Your task to perform on an android device: Go to location settings Image 0: 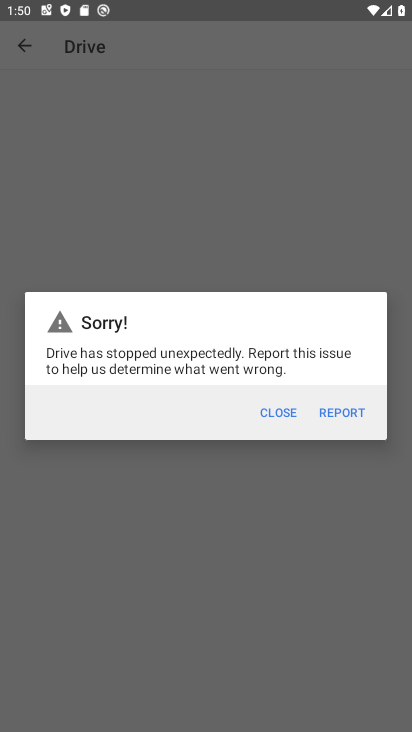
Step 0: press home button
Your task to perform on an android device: Go to location settings Image 1: 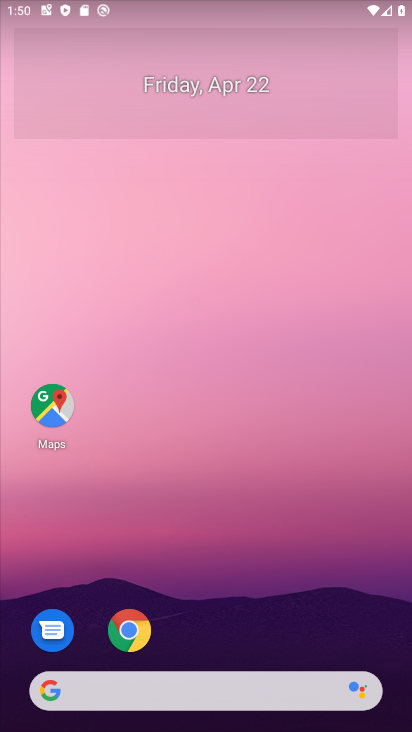
Step 1: drag from (355, 565) to (342, 115)
Your task to perform on an android device: Go to location settings Image 2: 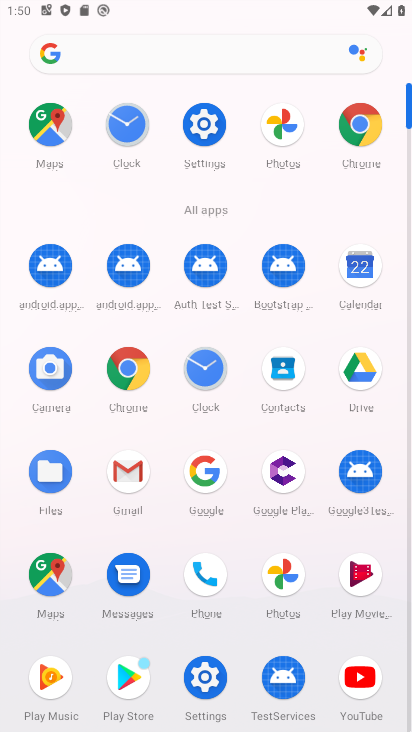
Step 2: click (197, 116)
Your task to perform on an android device: Go to location settings Image 3: 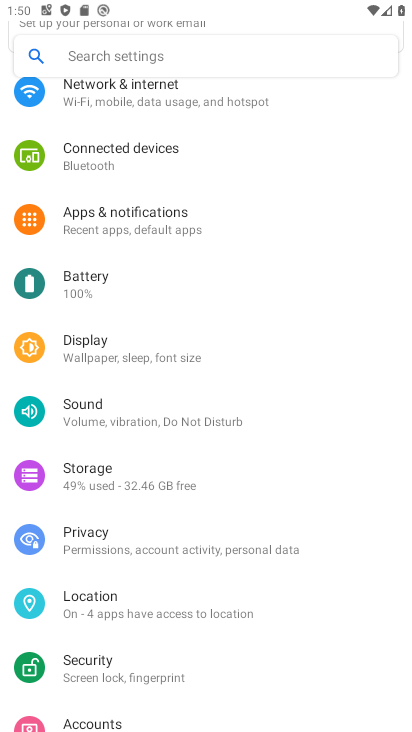
Step 3: click (88, 603)
Your task to perform on an android device: Go to location settings Image 4: 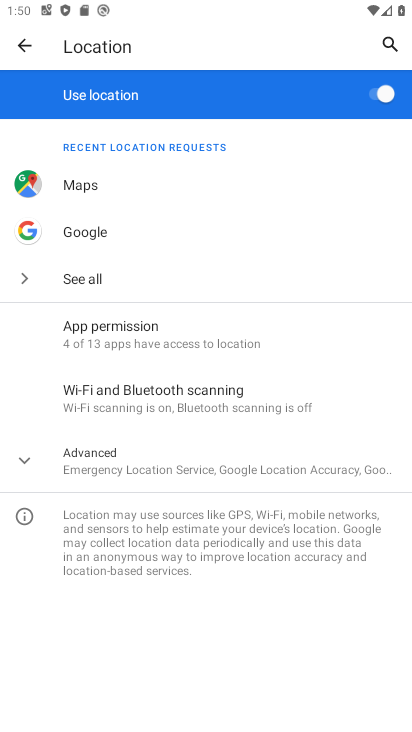
Step 4: task complete